Your task to perform on an android device: Show me popular games on the Play Store Image 0: 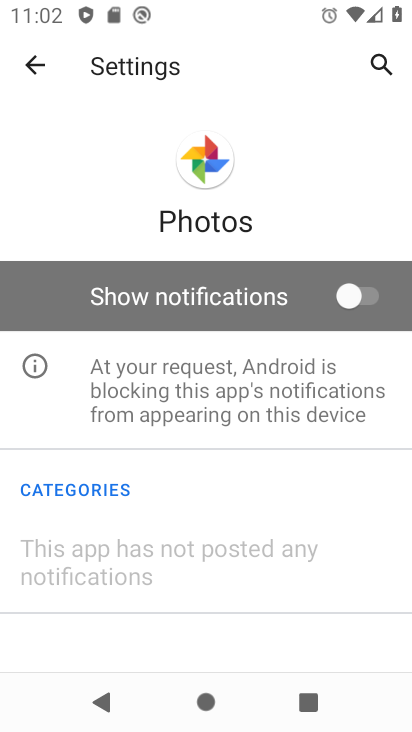
Step 0: press home button
Your task to perform on an android device: Show me popular games on the Play Store Image 1: 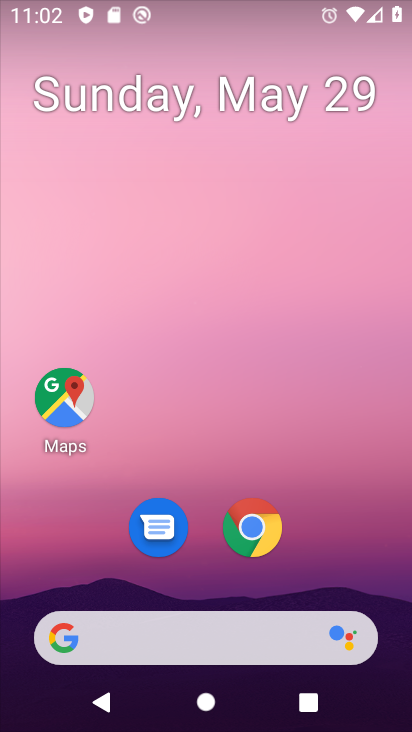
Step 1: drag from (202, 598) to (180, 127)
Your task to perform on an android device: Show me popular games on the Play Store Image 2: 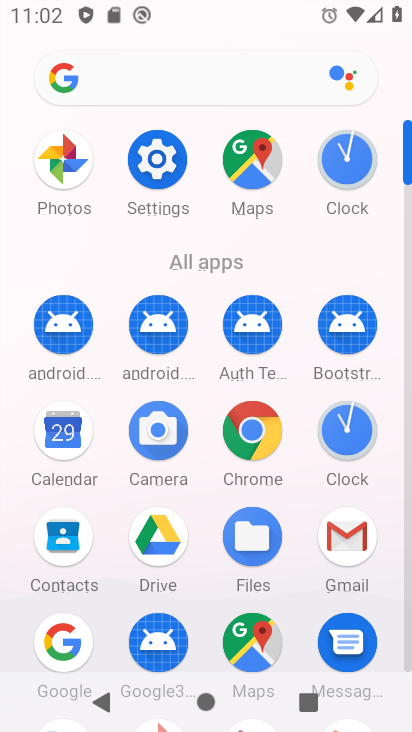
Step 2: drag from (203, 616) to (205, 106)
Your task to perform on an android device: Show me popular games on the Play Store Image 3: 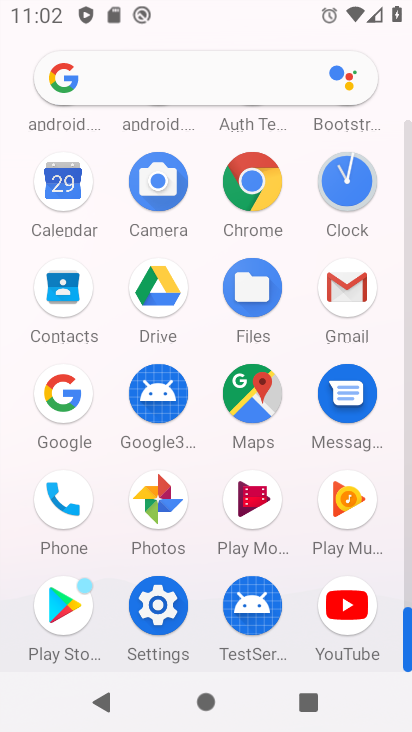
Step 3: click (37, 612)
Your task to perform on an android device: Show me popular games on the Play Store Image 4: 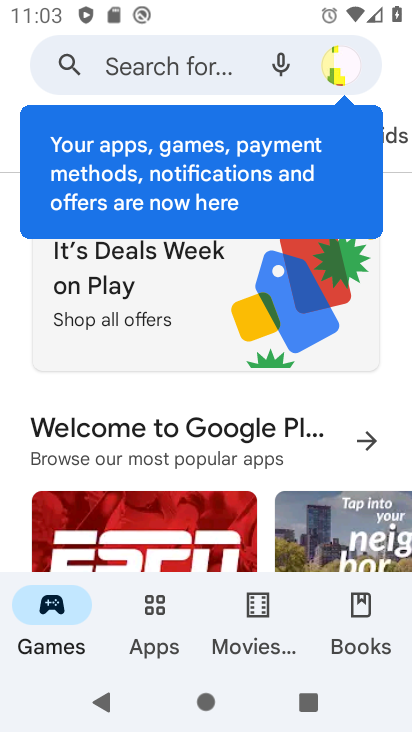
Step 4: click (100, 398)
Your task to perform on an android device: Show me popular games on the Play Store Image 5: 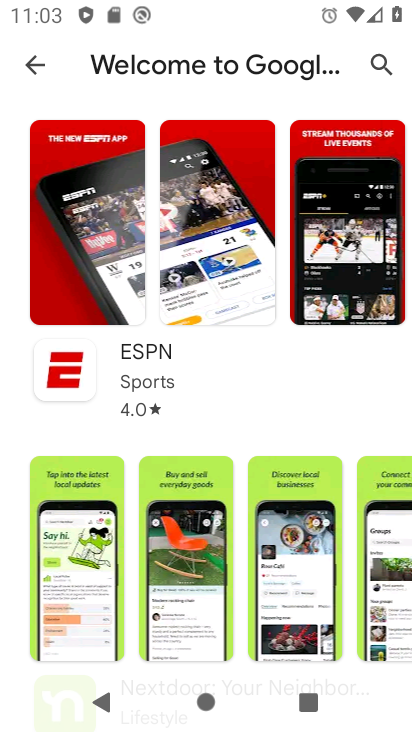
Step 5: click (23, 55)
Your task to perform on an android device: Show me popular games on the Play Store Image 6: 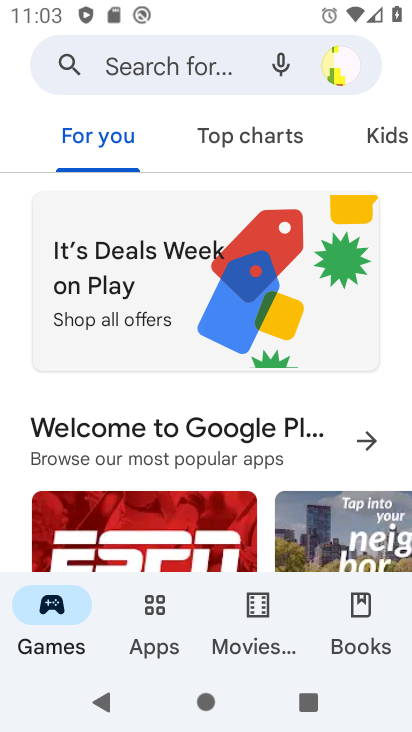
Step 6: click (223, 154)
Your task to perform on an android device: Show me popular games on the Play Store Image 7: 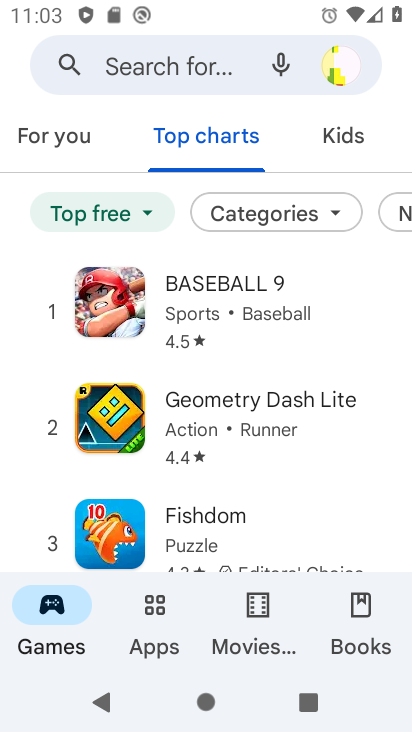
Step 7: task complete